Your task to perform on an android device: change the clock display to show seconds Image 0: 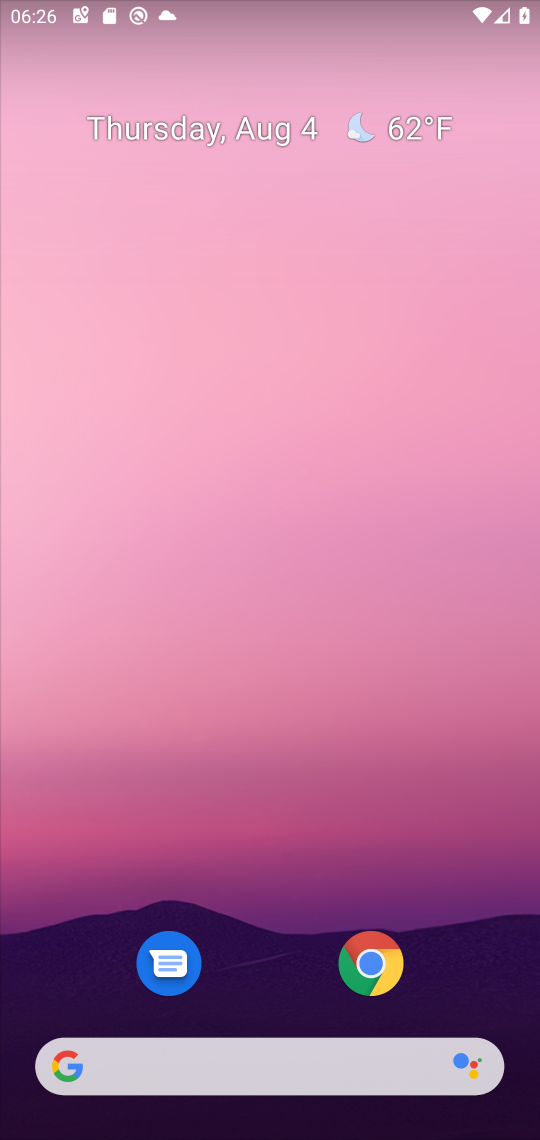
Step 0: drag from (275, 884) to (275, 0)
Your task to perform on an android device: change the clock display to show seconds Image 1: 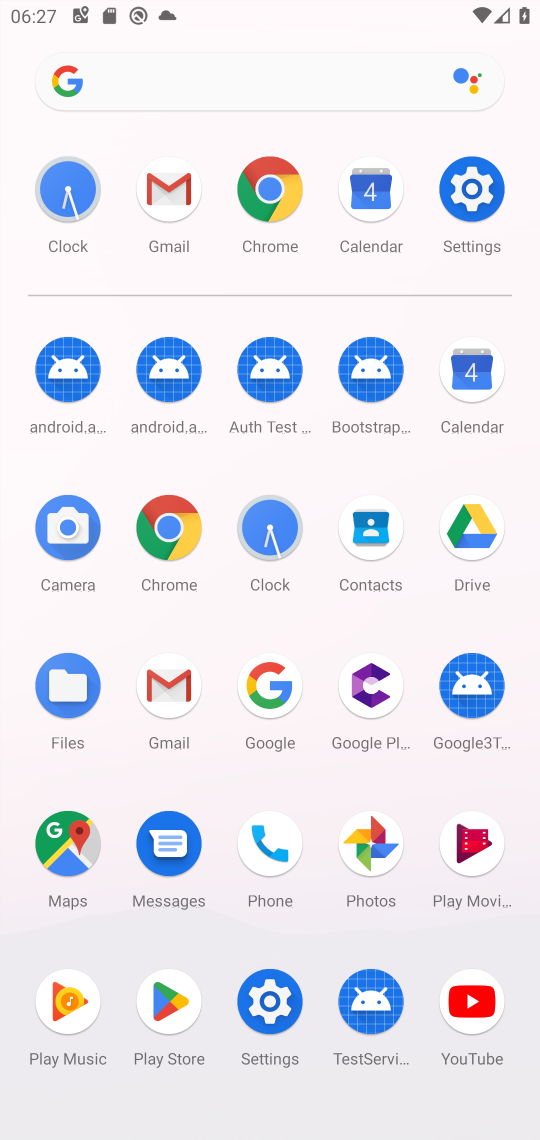
Step 1: click (274, 528)
Your task to perform on an android device: change the clock display to show seconds Image 2: 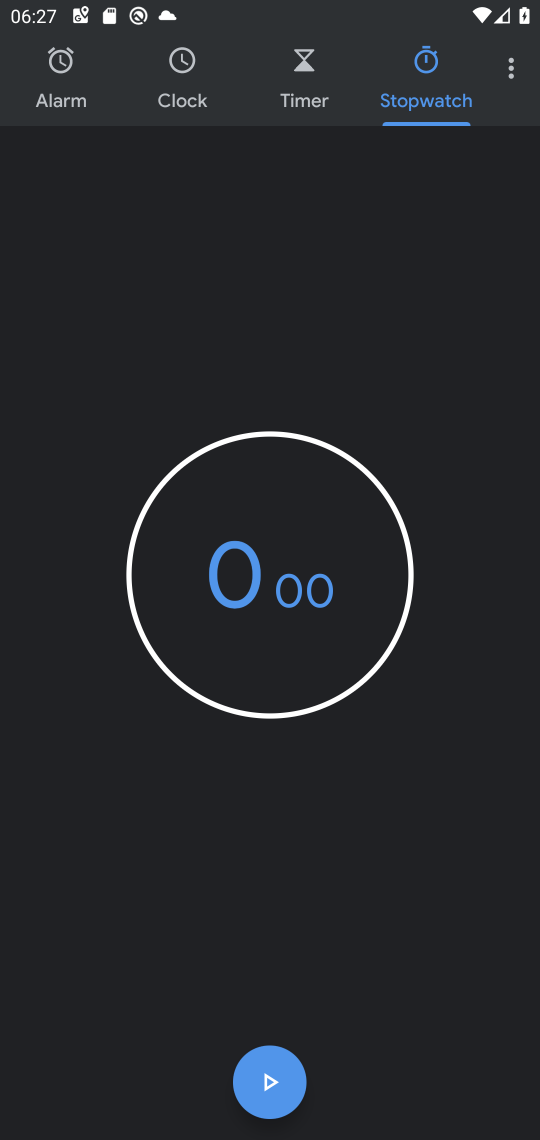
Step 2: click (509, 73)
Your task to perform on an android device: change the clock display to show seconds Image 3: 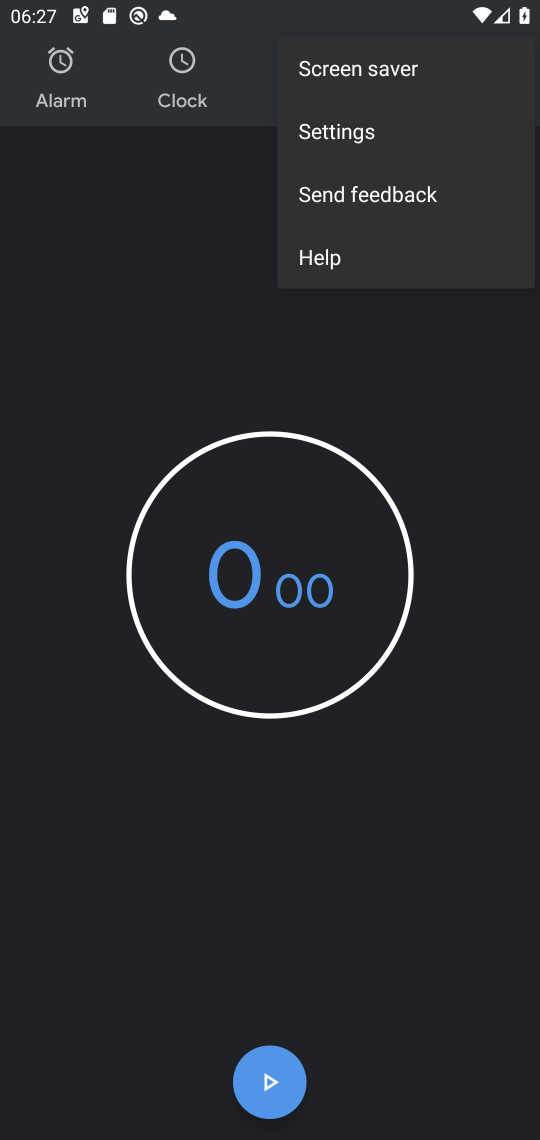
Step 3: click (359, 121)
Your task to perform on an android device: change the clock display to show seconds Image 4: 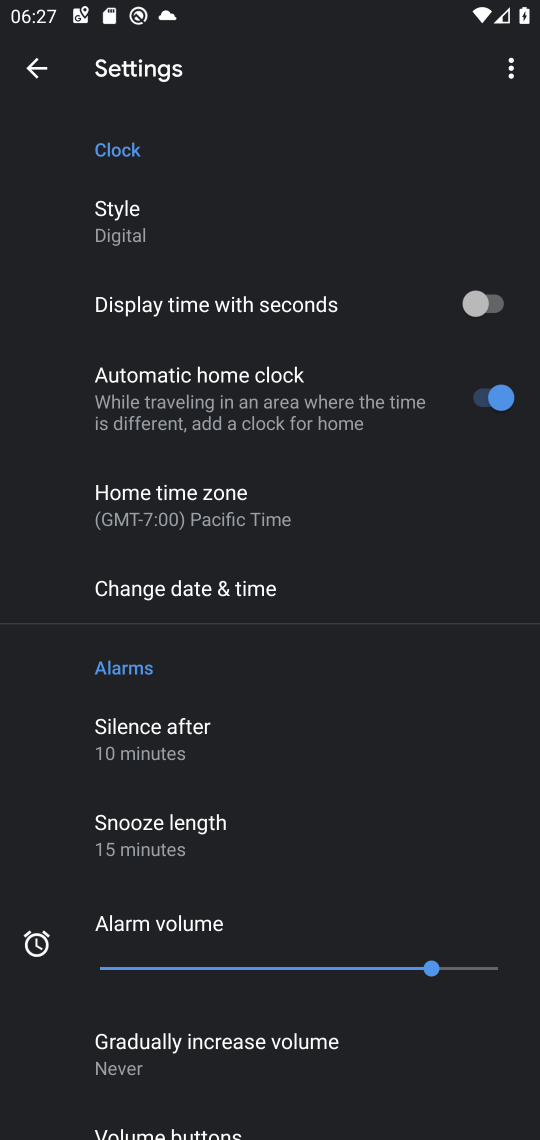
Step 4: click (483, 305)
Your task to perform on an android device: change the clock display to show seconds Image 5: 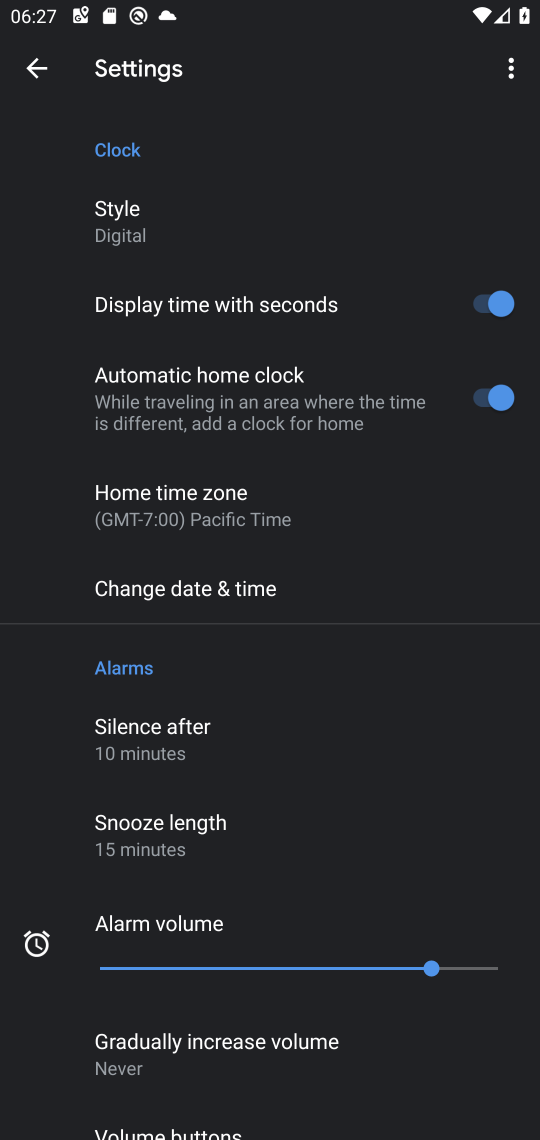
Step 5: task complete